Your task to perform on an android device: Go to privacy settings Image 0: 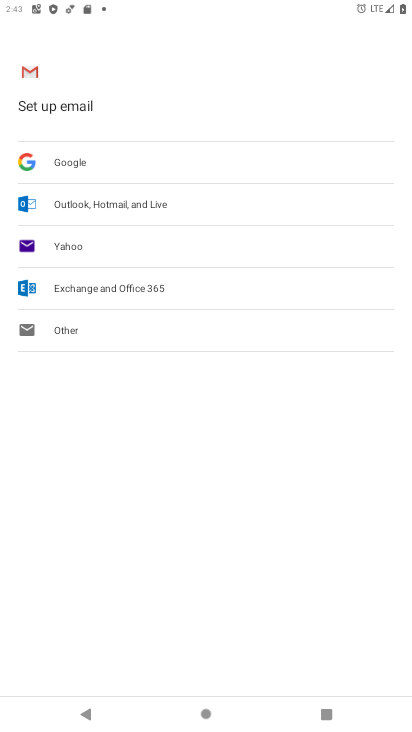
Step 0: press home button
Your task to perform on an android device: Go to privacy settings Image 1: 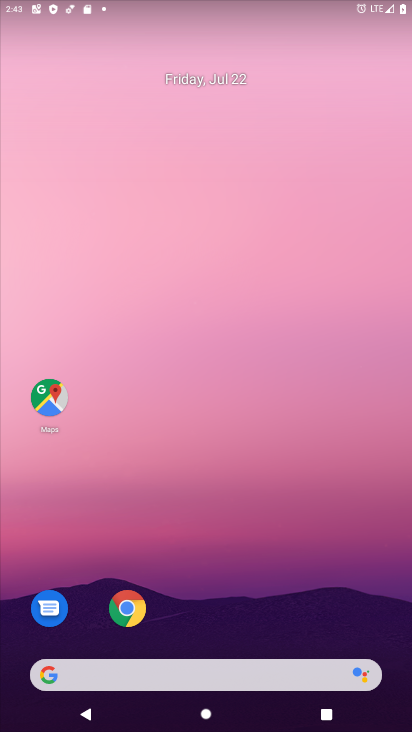
Step 1: drag from (394, 637) to (333, 82)
Your task to perform on an android device: Go to privacy settings Image 2: 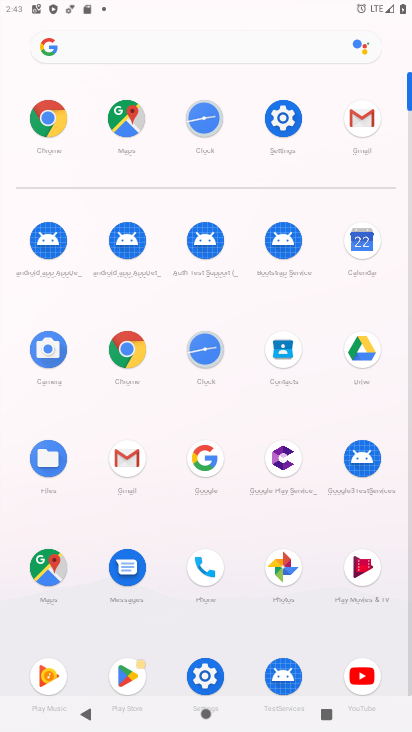
Step 2: click (276, 106)
Your task to perform on an android device: Go to privacy settings Image 3: 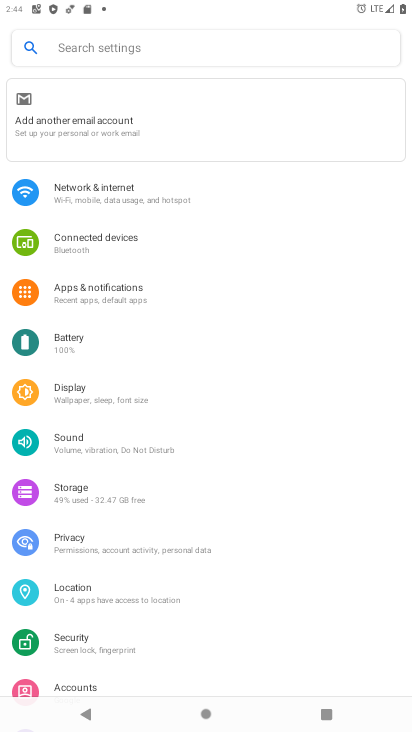
Step 3: click (67, 537)
Your task to perform on an android device: Go to privacy settings Image 4: 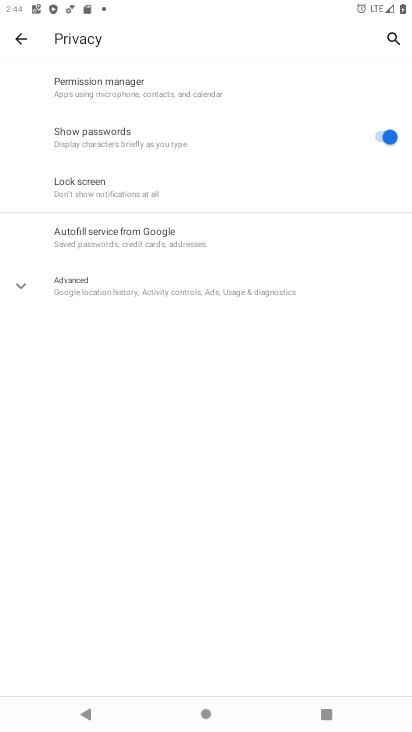
Step 4: click (20, 286)
Your task to perform on an android device: Go to privacy settings Image 5: 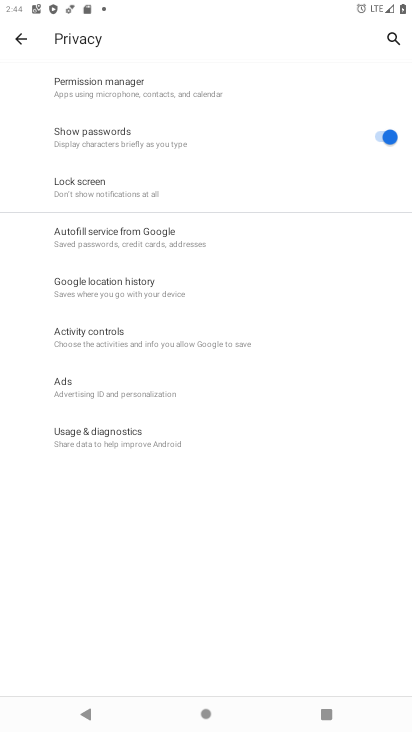
Step 5: task complete